Your task to perform on an android device: Open maps Image 0: 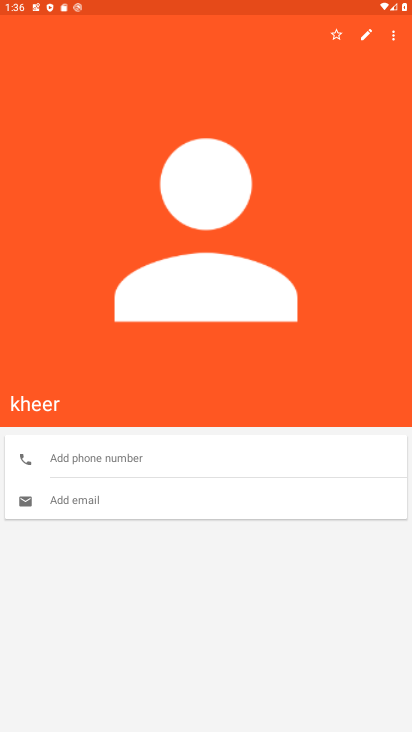
Step 0: press home button
Your task to perform on an android device: Open maps Image 1: 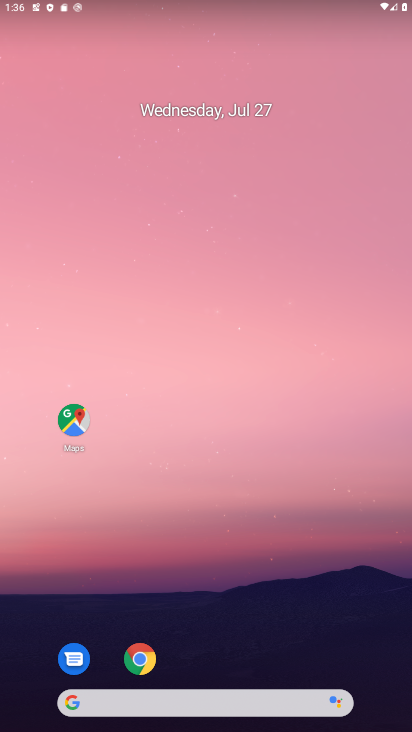
Step 1: drag from (225, 264) to (230, 143)
Your task to perform on an android device: Open maps Image 2: 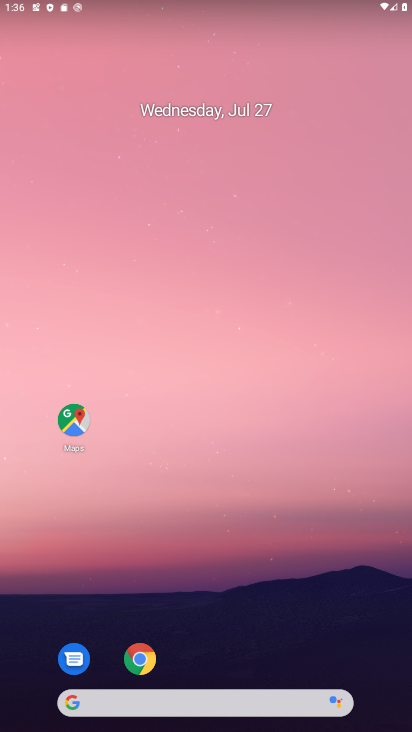
Step 2: click (74, 424)
Your task to perform on an android device: Open maps Image 3: 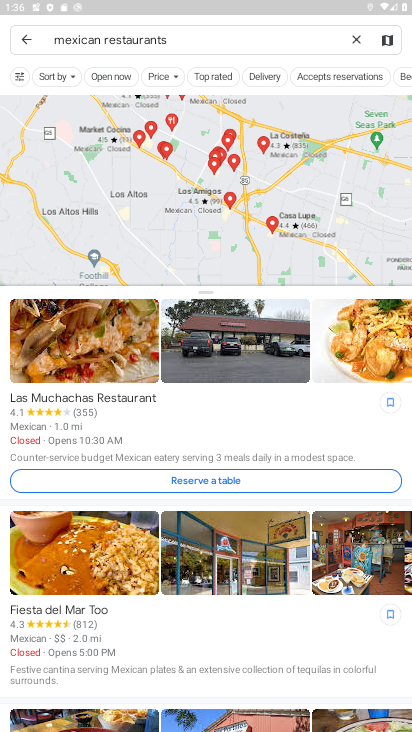
Step 3: task complete